Your task to perform on an android device: change your default location settings in chrome Image 0: 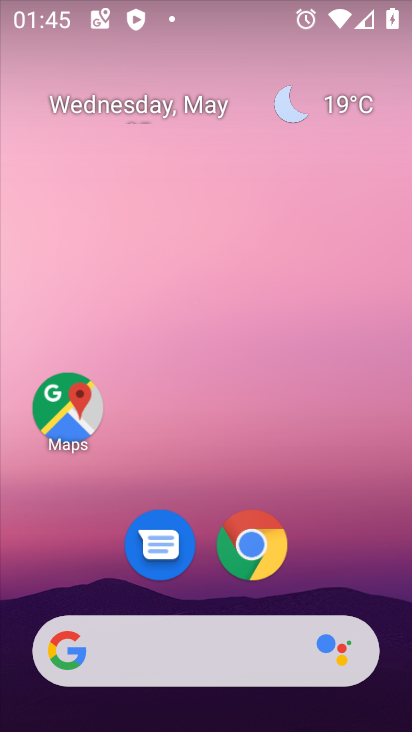
Step 0: drag from (312, 528) to (258, 94)
Your task to perform on an android device: change your default location settings in chrome Image 1: 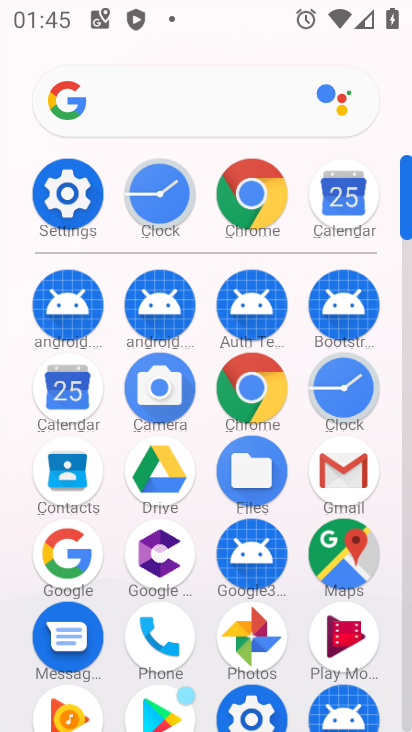
Step 1: click (250, 383)
Your task to perform on an android device: change your default location settings in chrome Image 2: 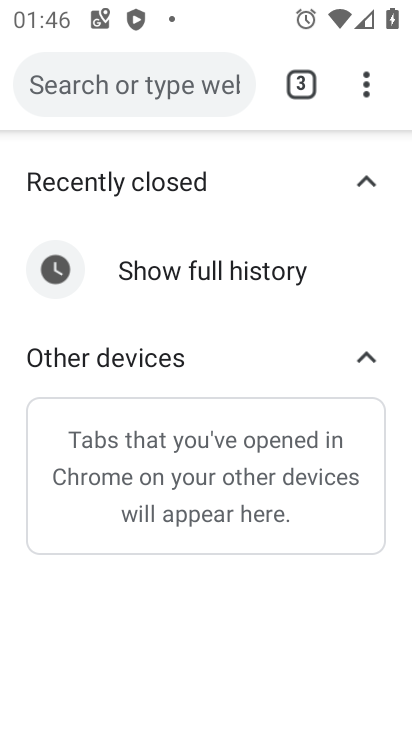
Step 2: drag from (377, 83) to (161, 587)
Your task to perform on an android device: change your default location settings in chrome Image 3: 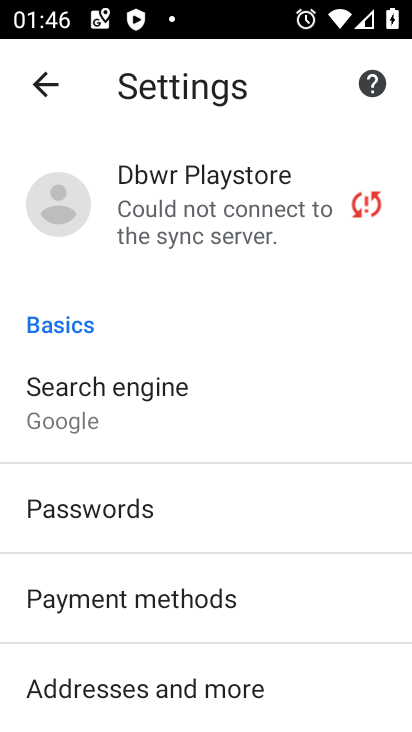
Step 3: drag from (169, 602) to (253, 122)
Your task to perform on an android device: change your default location settings in chrome Image 4: 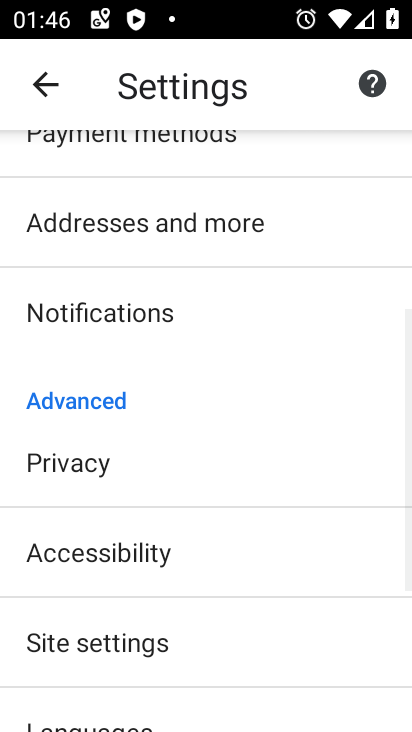
Step 4: drag from (176, 550) to (233, 286)
Your task to perform on an android device: change your default location settings in chrome Image 5: 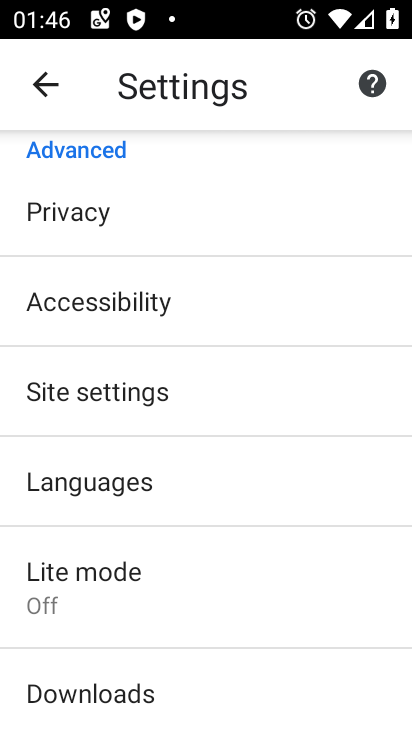
Step 5: click (141, 404)
Your task to perform on an android device: change your default location settings in chrome Image 6: 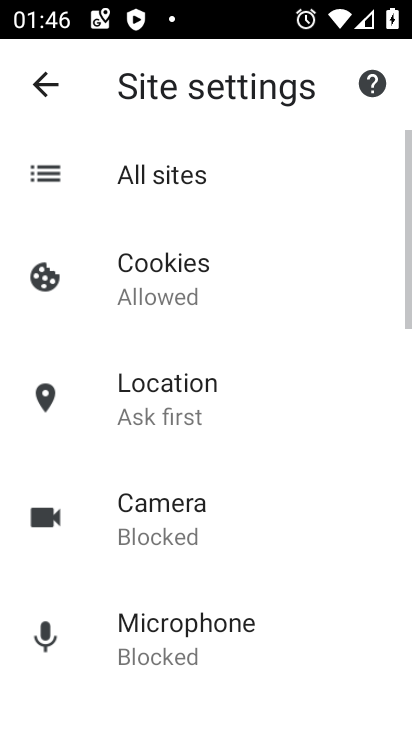
Step 6: click (169, 422)
Your task to perform on an android device: change your default location settings in chrome Image 7: 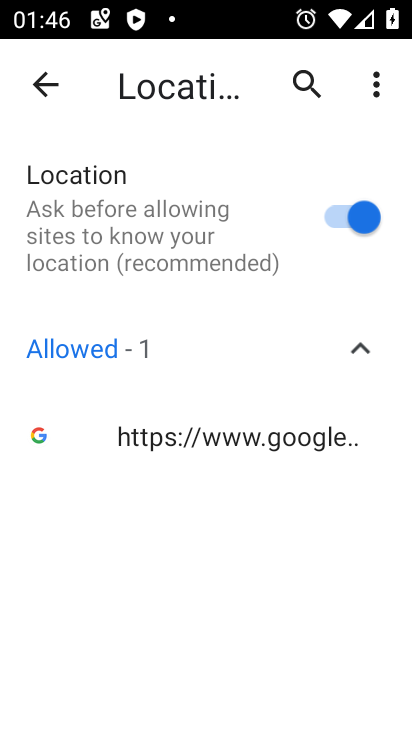
Step 7: click (369, 211)
Your task to perform on an android device: change your default location settings in chrome Image 8: 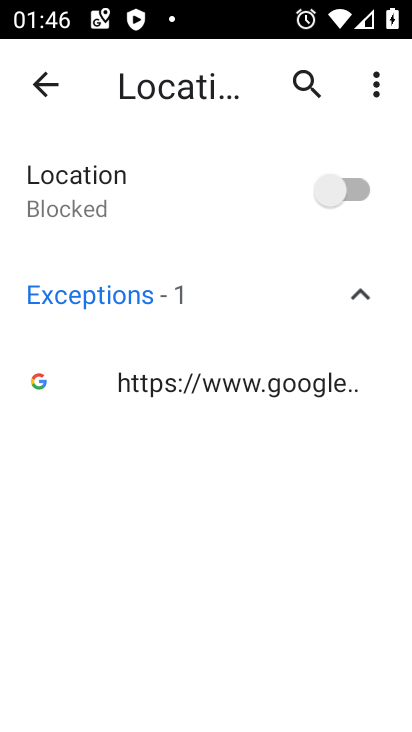
Step 8: task complete